Your task to perform on an android device: Go to settings Image 0: 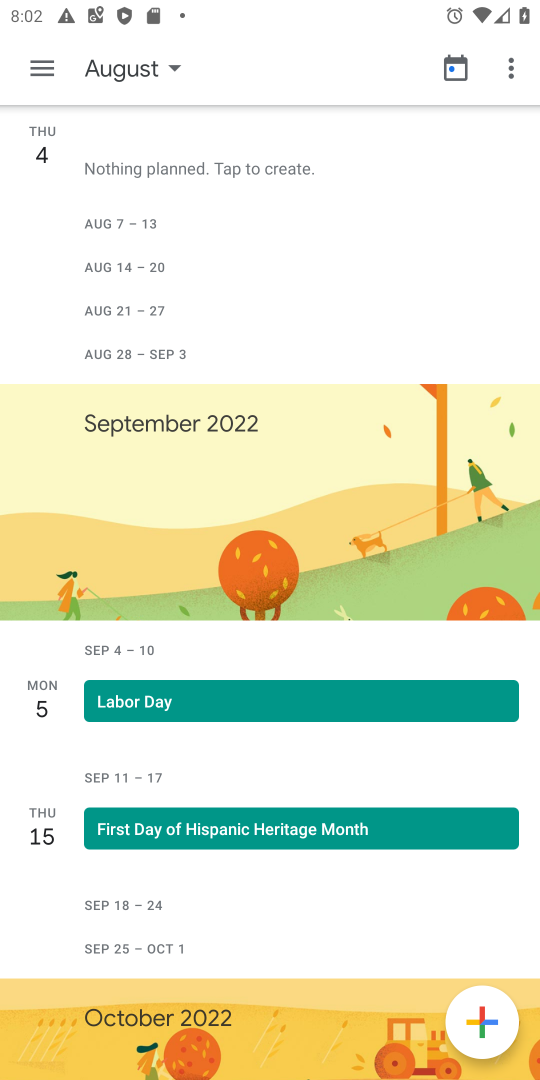
Step 0: press home button
Your task to perform on an android device: Go to settings Image 1: 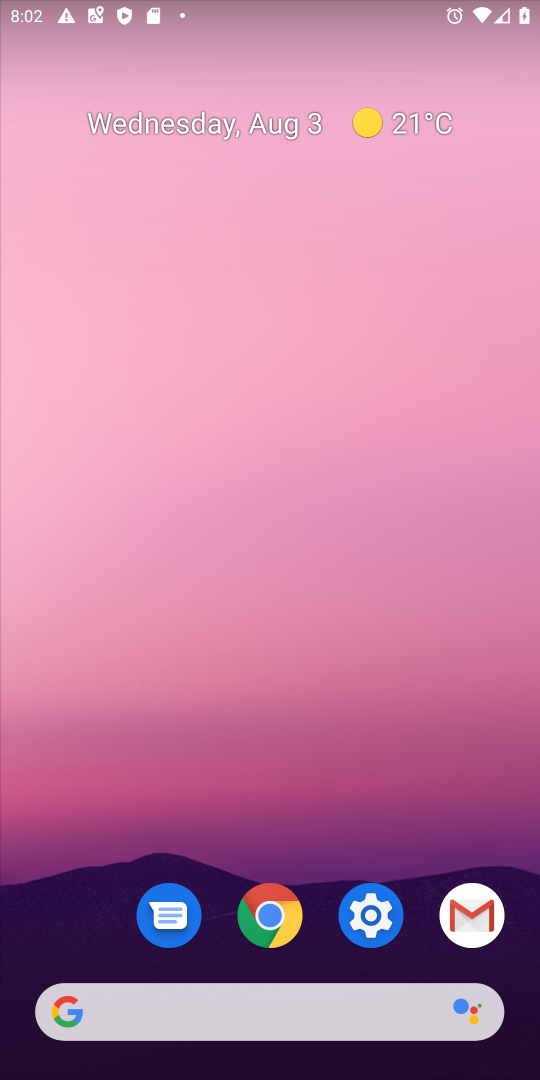
Step 1: drag from (353, 1035) to (213, 306)
Your task to perform on an android device: Go to settings Image 2: 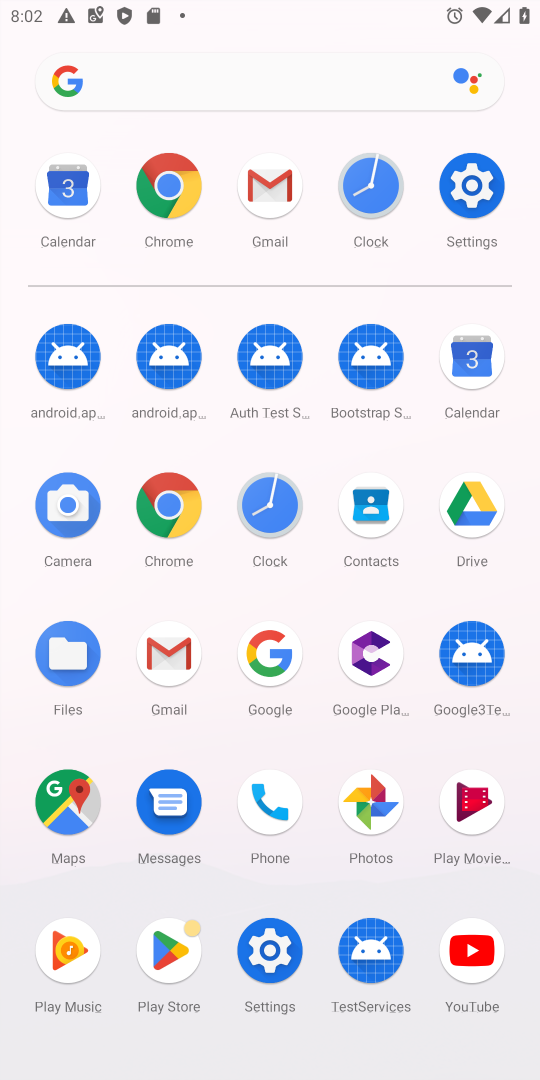
Step 2: click (472, 169)
Your task to perform on an android device: Go to settings Image 3: 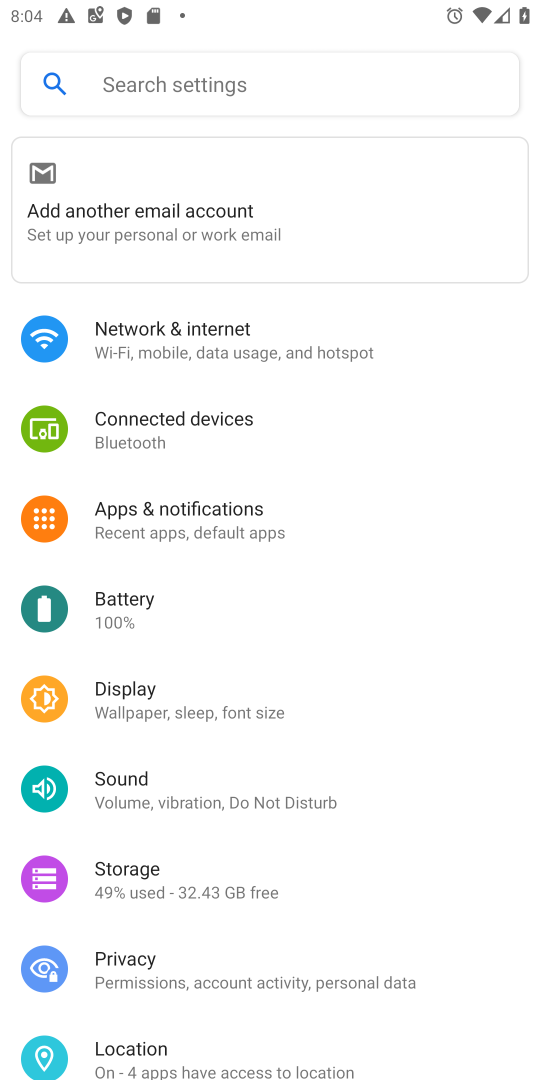
Step 3: task complete